Your task to perform on an android device: set the timer Image 0: 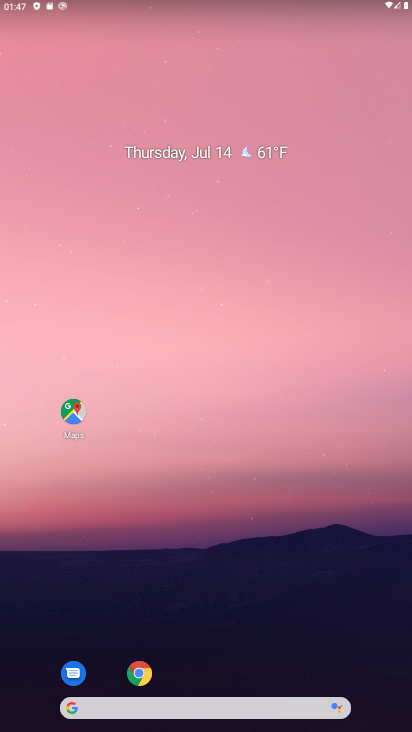
Step 0: drag from (262, 633) to (220, 76)
Your task to perform on an android device: set the timer Image 1: 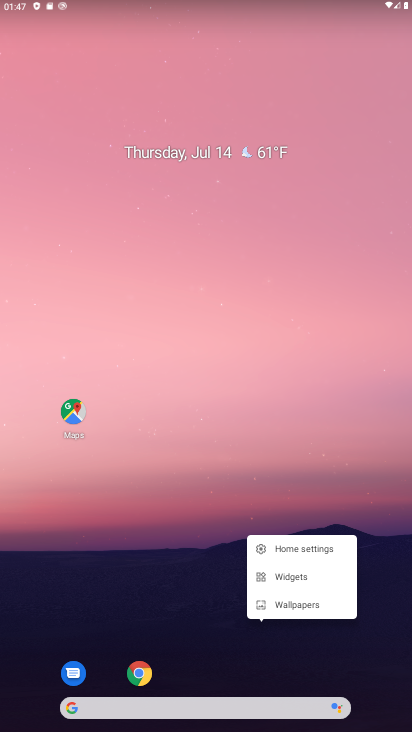
Step 1: click (195, 576)
Your task to perform on an android device: set the timer Image 2: 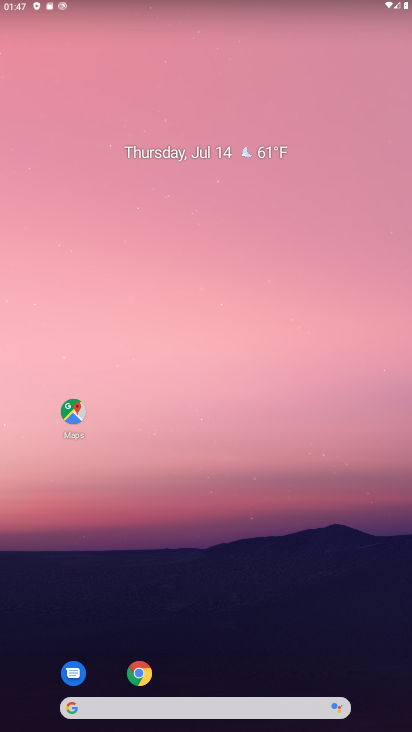
Step 2: drag from (212, 676) to (155, 169)
Your task to perform on an android device: set the timer Image 3: 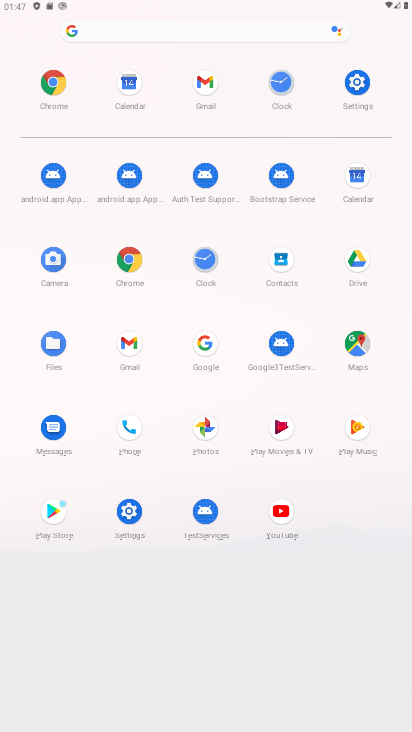
Step 3: click (287, 87)
Your task to perform on an android device: set the timer Image 4: 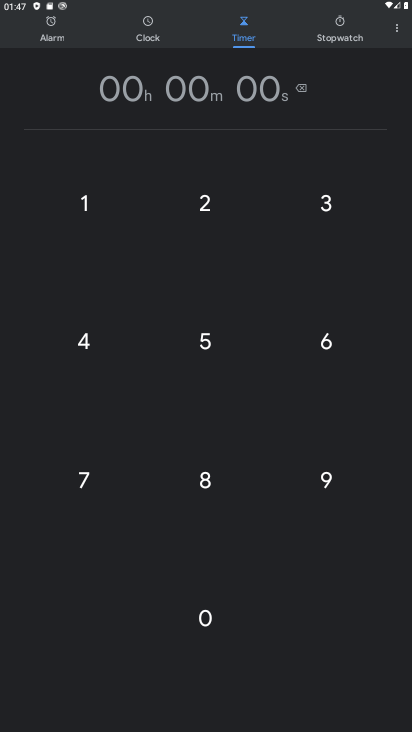
Step 4: click (395, 32)
Your task to perform on an android device: set the timer Image 5: 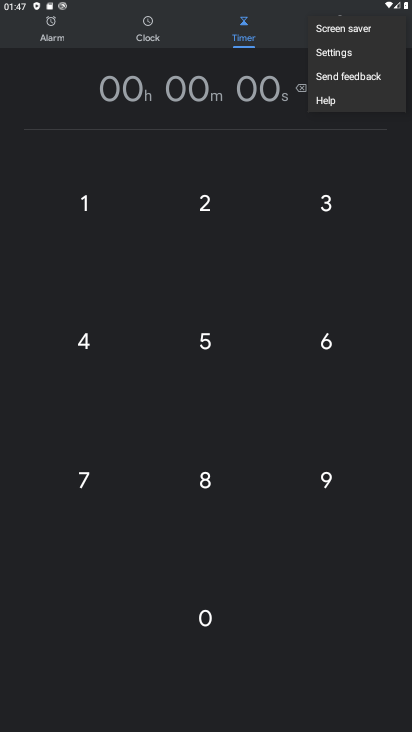
Step 5: click (348, 57)
Your task to perform on an android device: set the timer Image 6: 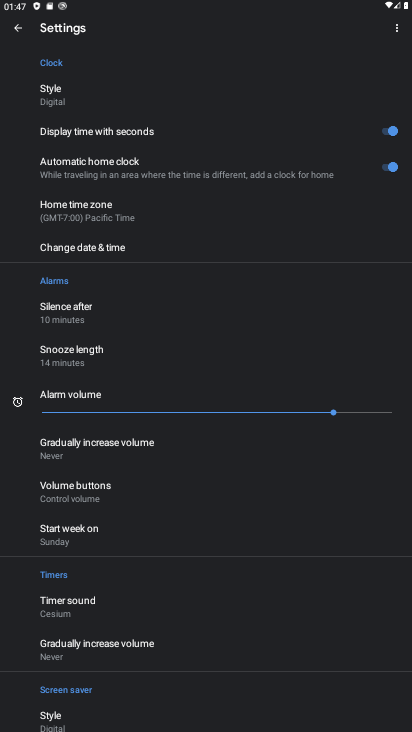
Step 6: click (74, 594)
Your task to perform on an android device: set the timer Image 7: 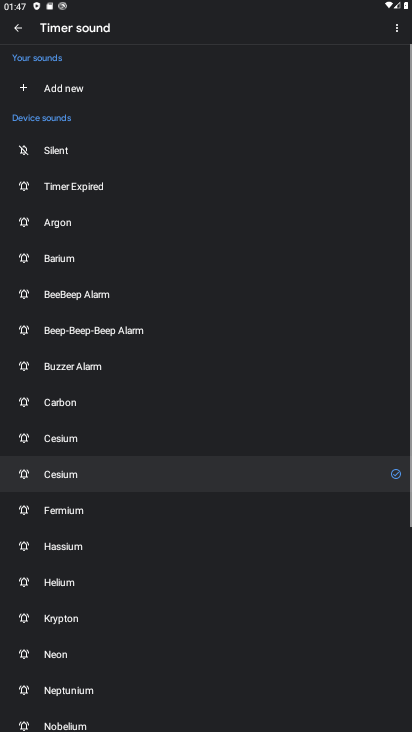
Step 7: click (144, 633)
Your task to perform on an android device: set the timer Image 8: 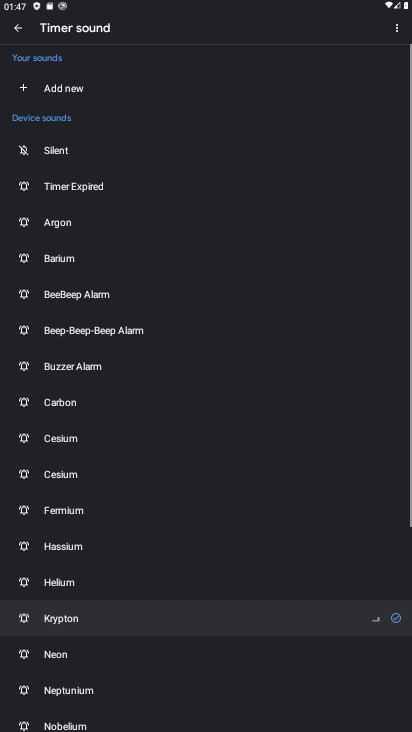
Step 8: task complete